Your task to perform on an android device: Show me popular games on the Play Store Image 0: 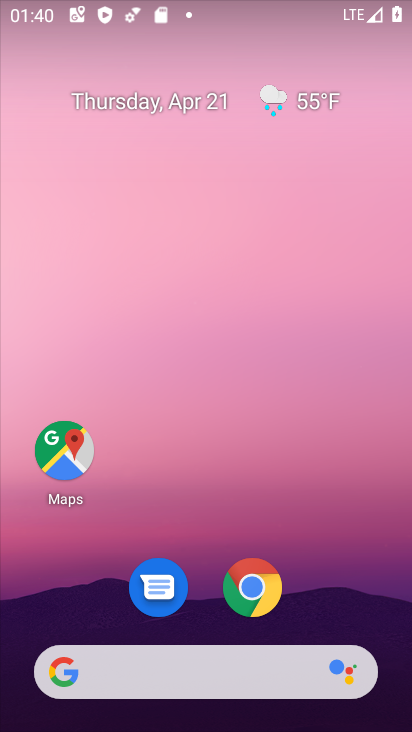
Step 0: drag from (385, 615) to (278, 144)
Your task to perform on an android device: Show me popular games on the Play Store Image 1: 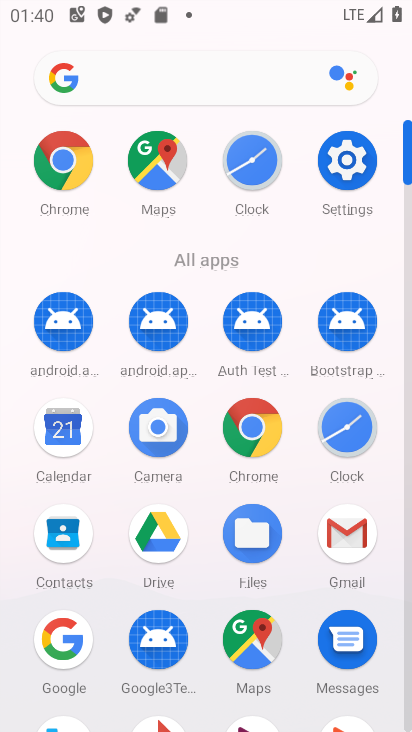
Step 1: click (407, 681)
Your task to perform on an android device: Show me popular games on the Play Store Image 2: 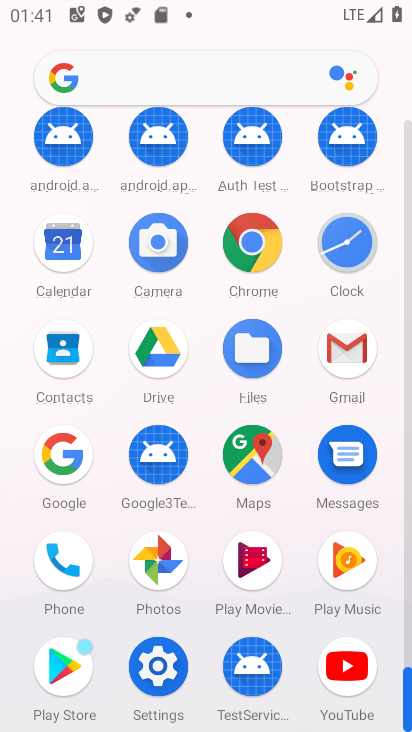
Step 2: click (61, 656)
Your task to perform on an android device: Show me popular games on the Play Store Image 3: 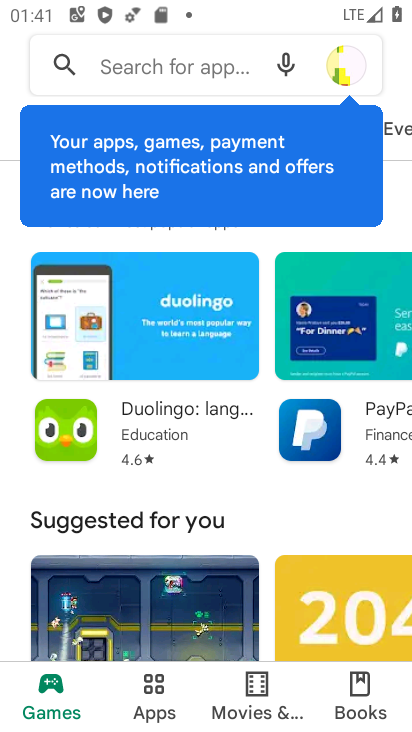
Step 3: drag from (261, 518) to (288, 335)
Your task to perform on an android device: Show me popular games on the Play Store Image 4: 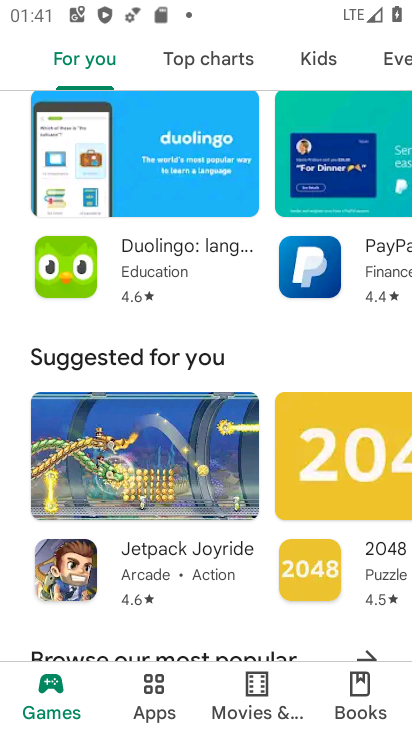
Step 4: drag from (258, 603) to (270, 353)
Your task to perform on an android device: Show me popular games on the Play Store Image 5: 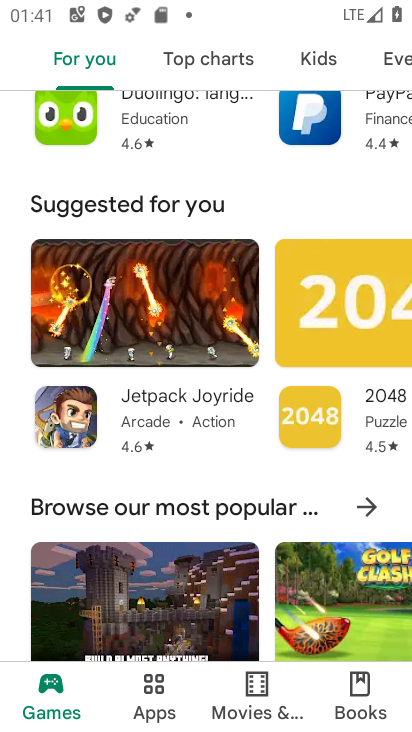
Step 5: drag from (251, 495) to (262, 307)
Your task to perform on an android device: Show me popular games on the Play Store Image 6: 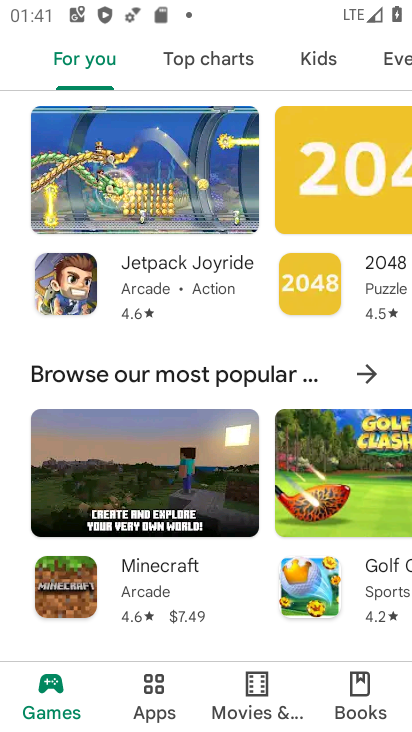
Step 6: click (365, 370)
Your task to perform on an android device: Show me popular games on the Play Store Image 7: 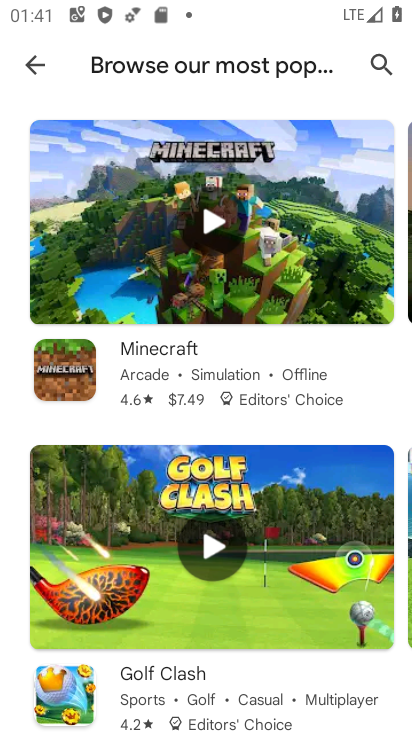
Step 7: task complete